Your task to perform on an android device: Open the calendar app, open the side menu, and click the "Day" option Image 0: 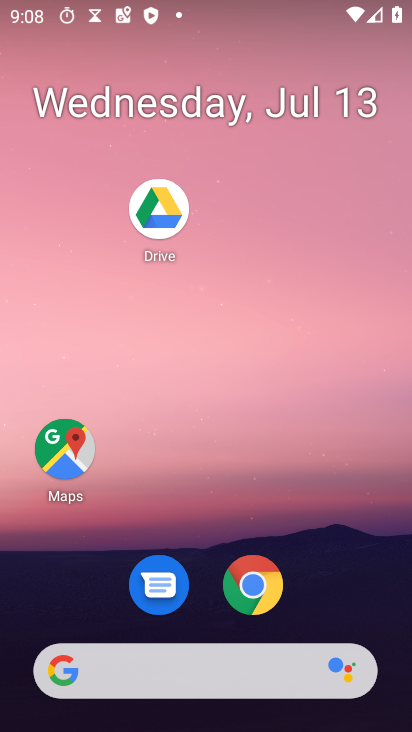
Step 0: drag from (194, 665) to (342, 81)
Your task to perform on an android device: Open the calendar app, open the side menu, and click the "Day" option Image 1: 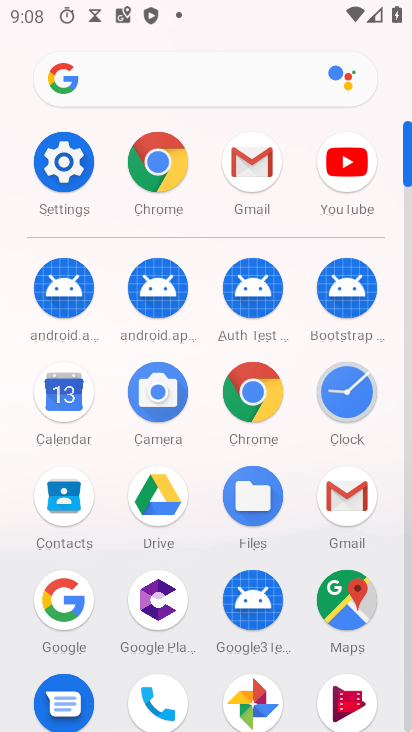
Step 1: click (52, 399)
Your task to perform on an android device: Open the calendar app, open the side menu, and click the "Day" option Image 2: 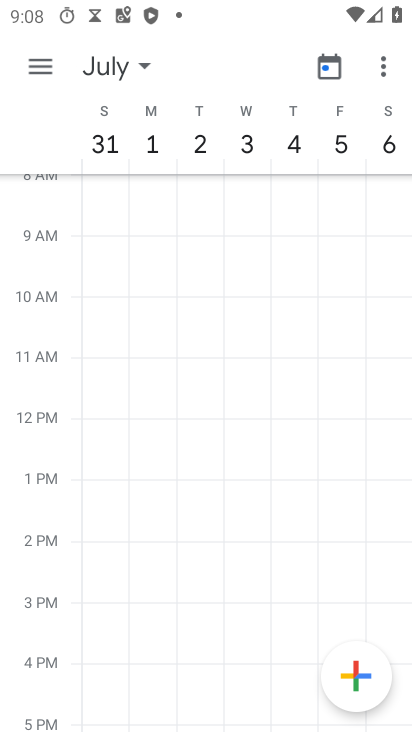
Step 2: click (48, 69)
Your task to perform on an android device: Open the calendar app, open the side menu, and click the "Day" option Image 3: 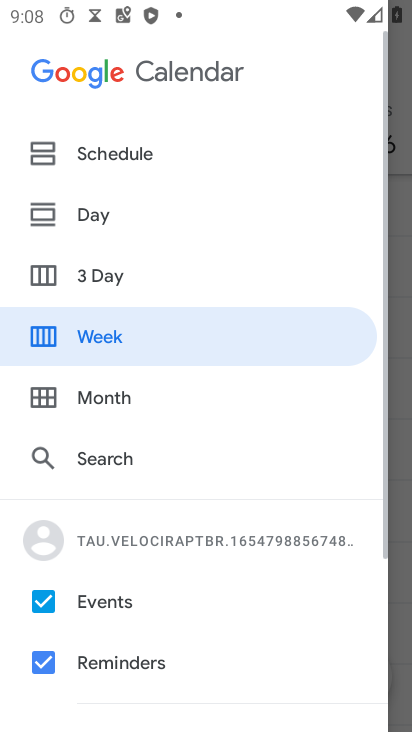
Step 3: click (86, 219)
Your task to perform on an android device: Open the calendar app, open the side menu, and click the "Day" option Image 4: 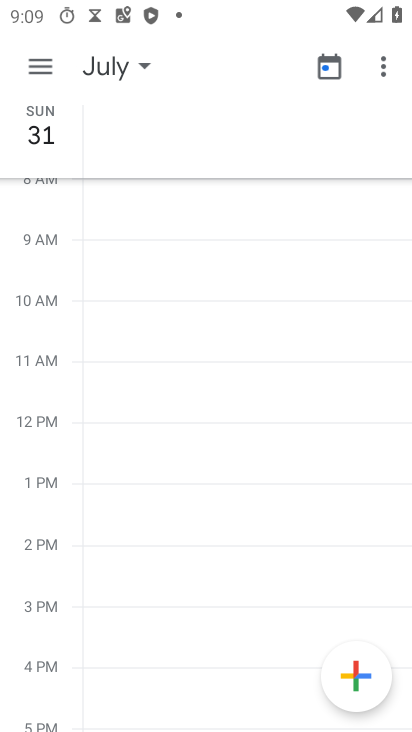
Step 4: task complete